Your task to perform on an android device: Open notification settings Image 0: 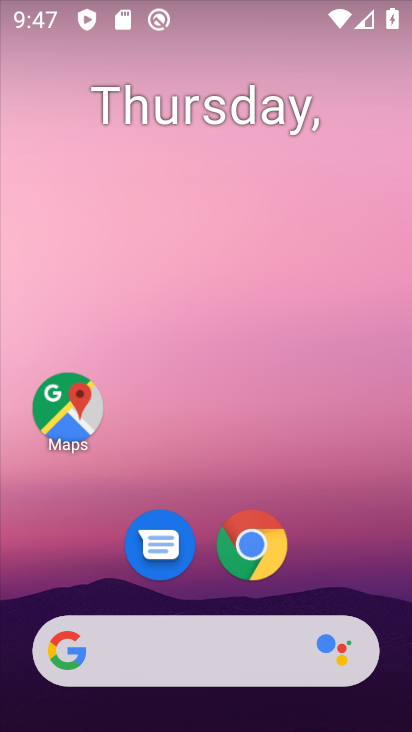
Step 0: drag from (338, 560) to (199, 98)
Your task to perform on an android device: Open notification settings Image 1: 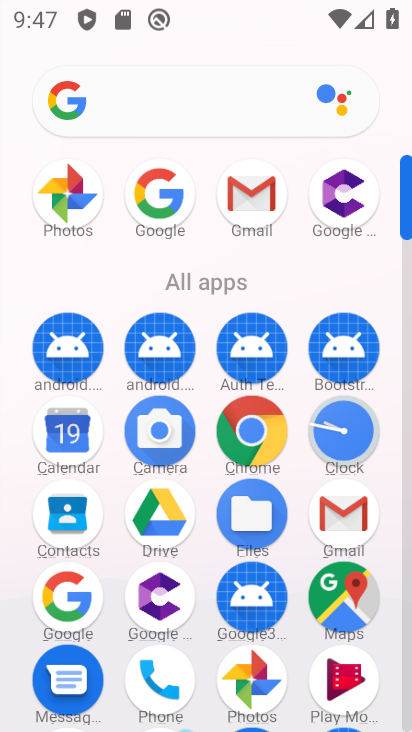
Step 1: drag from (106, 590) to (96, 287)
Your task to perform on an android device: Open notification settings Image 2: 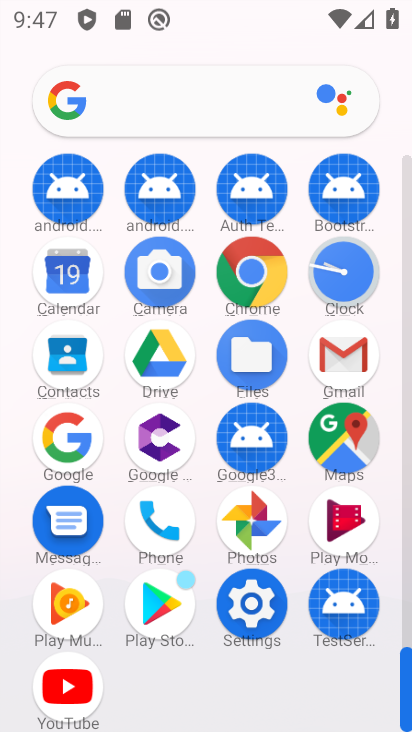
Step 2: click (253, 602)
Your task to perform on an android device: Open notification settings Image 3: 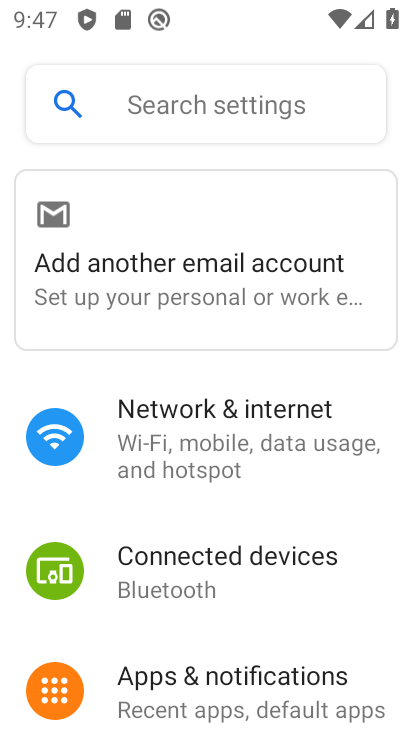
Step 3: drag from (185, 506) to (207, 341)
Your task to perform on an android device: Open notification settings Image 4: 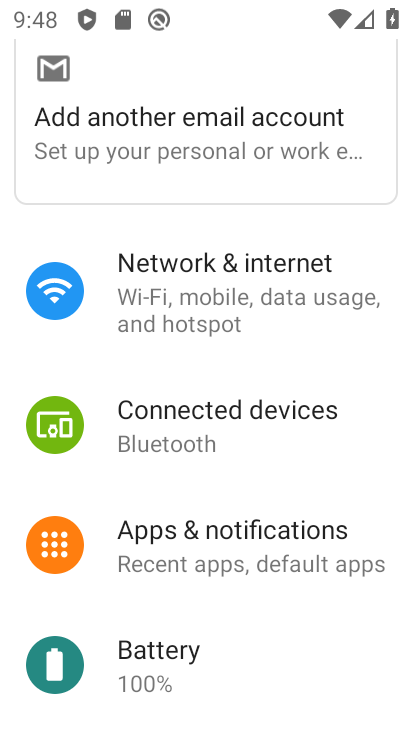
Step 4: click (222, 528)
Your task to perform on an android device: Open notification settings Image 5: 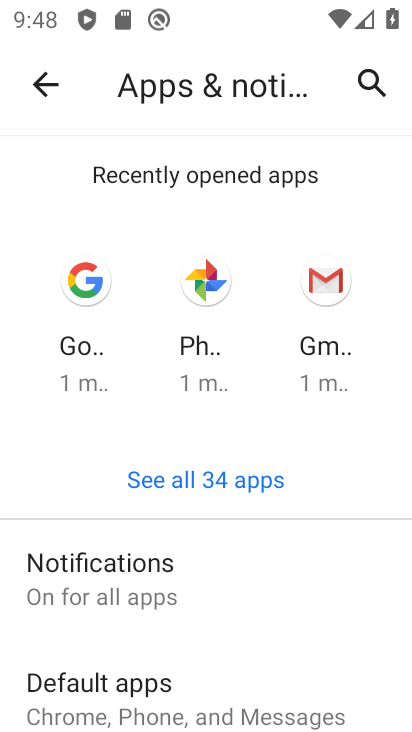
Step 5: click (142, 559)
Your task to perform on an android device: Open notification settings Image 6: 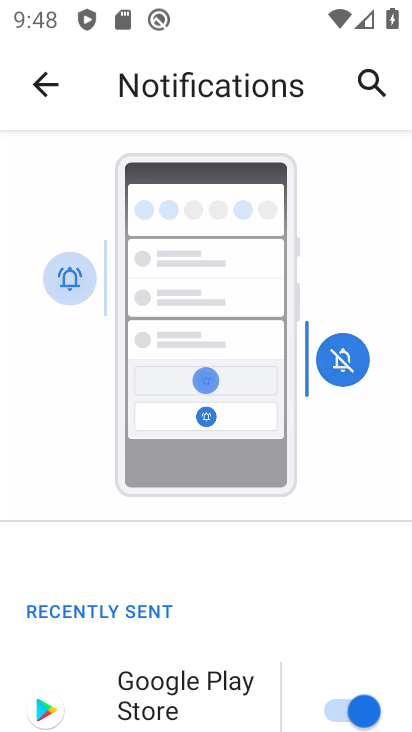
Step 6: task complete